Your task to perform on an android device: open app "NewsBreak: Local News & Alerts" (install if not already installed) and go to login screen Image 0: 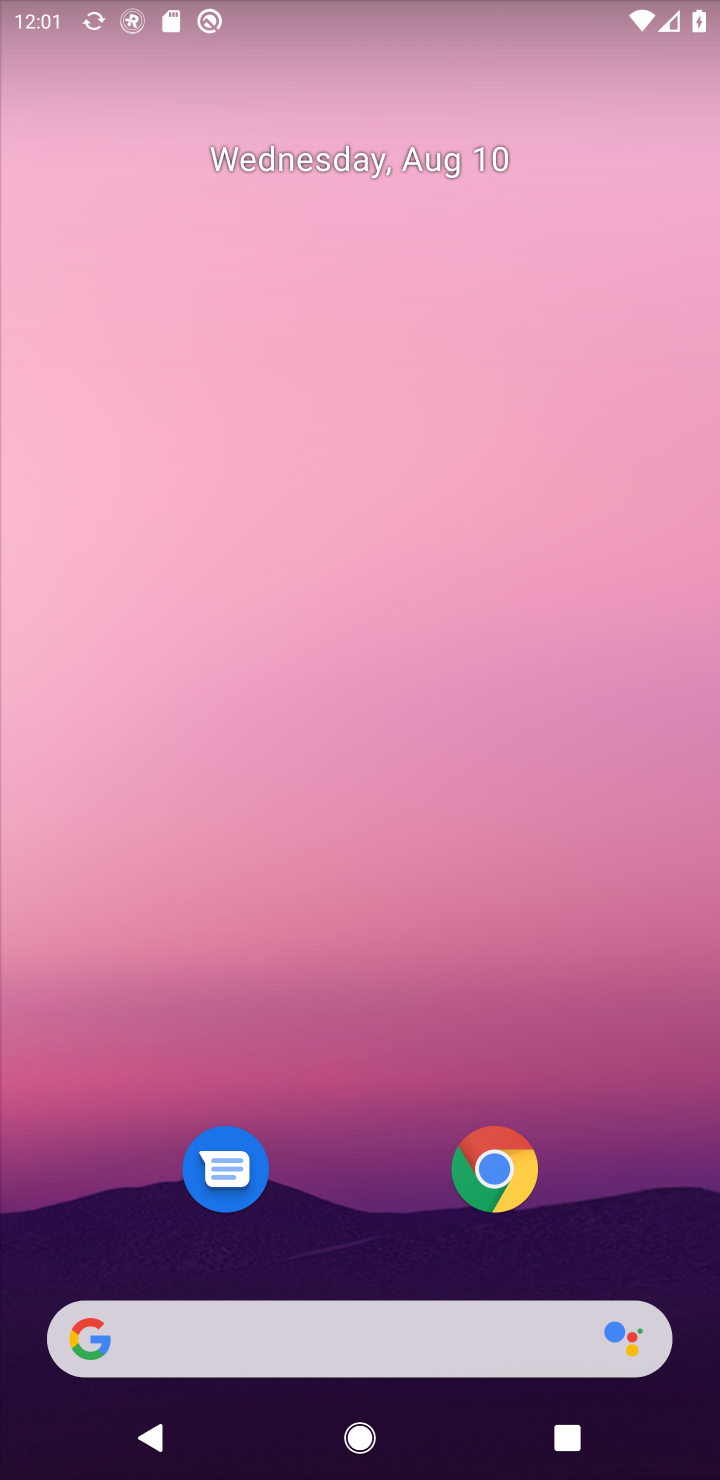
Step 0: press home button
Your task to perform on an android device: open app "NewsBreak: Local News & Alerts" (install if not already installed) and go to login screen Image 1: 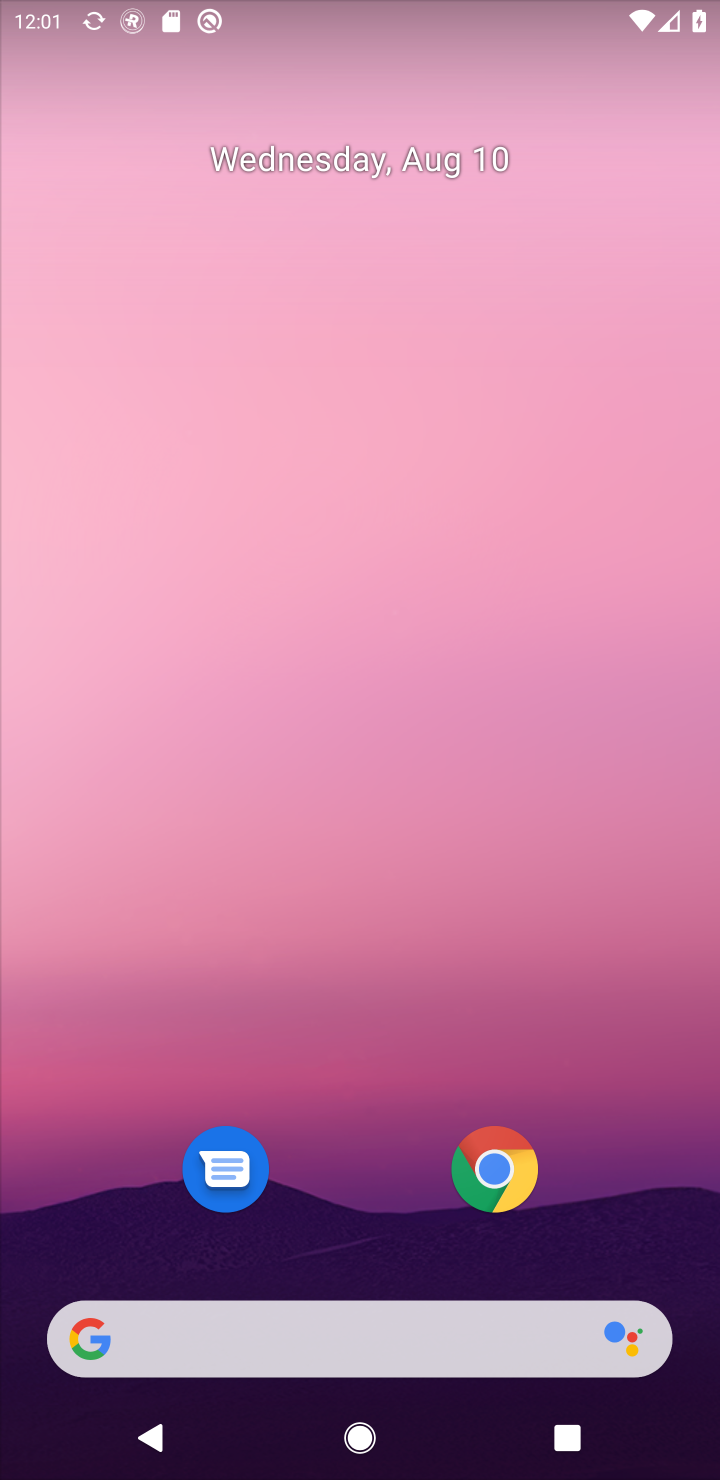
Step 1: drag from (630, 1153) to (610, 54)
Your task to perform on an android device: open app "NewsBreak: Local News & Alerts" (install if not already installed) and go to login screen Image 2: 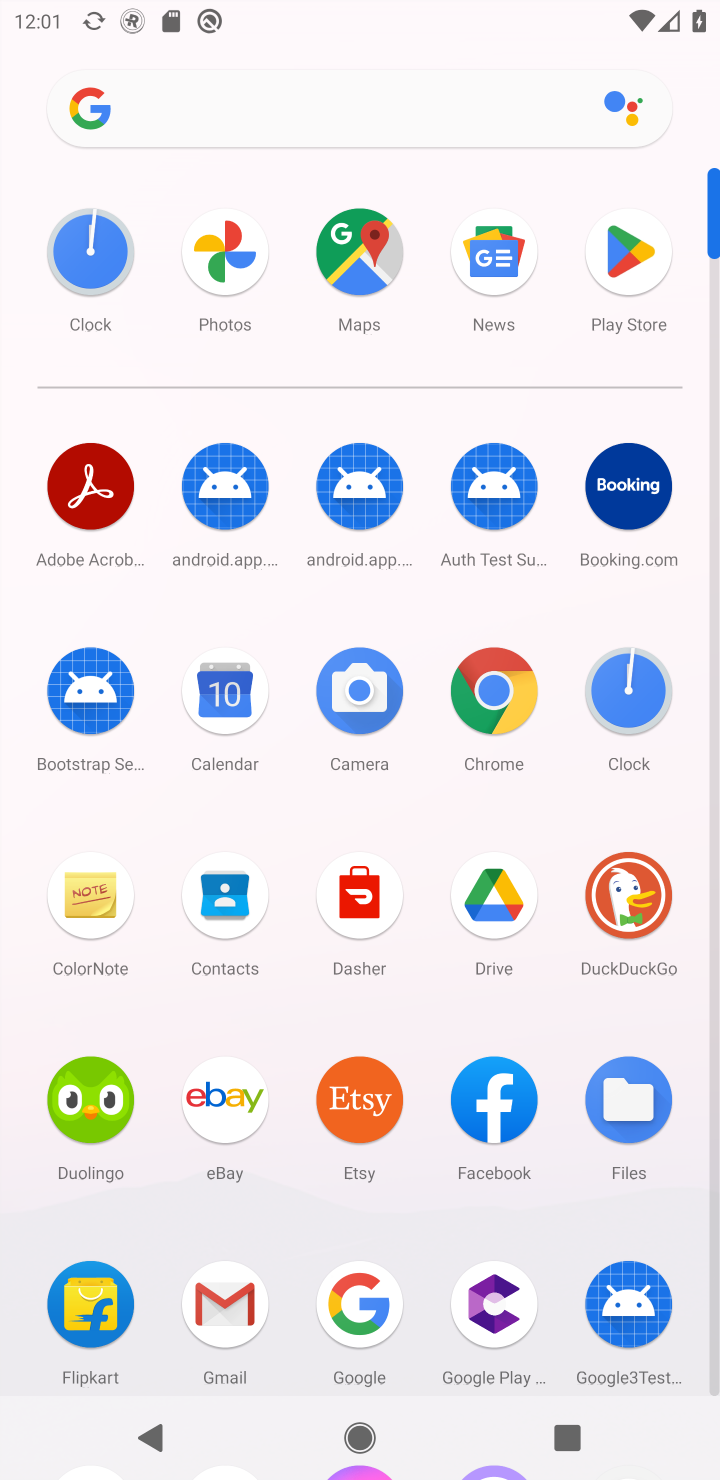
Step 2: click (627, 258)
Your task to perform on an android device: open app "NewsBreak: Local News & Alerts" (install if not already installed) and go to login screen Image 3: 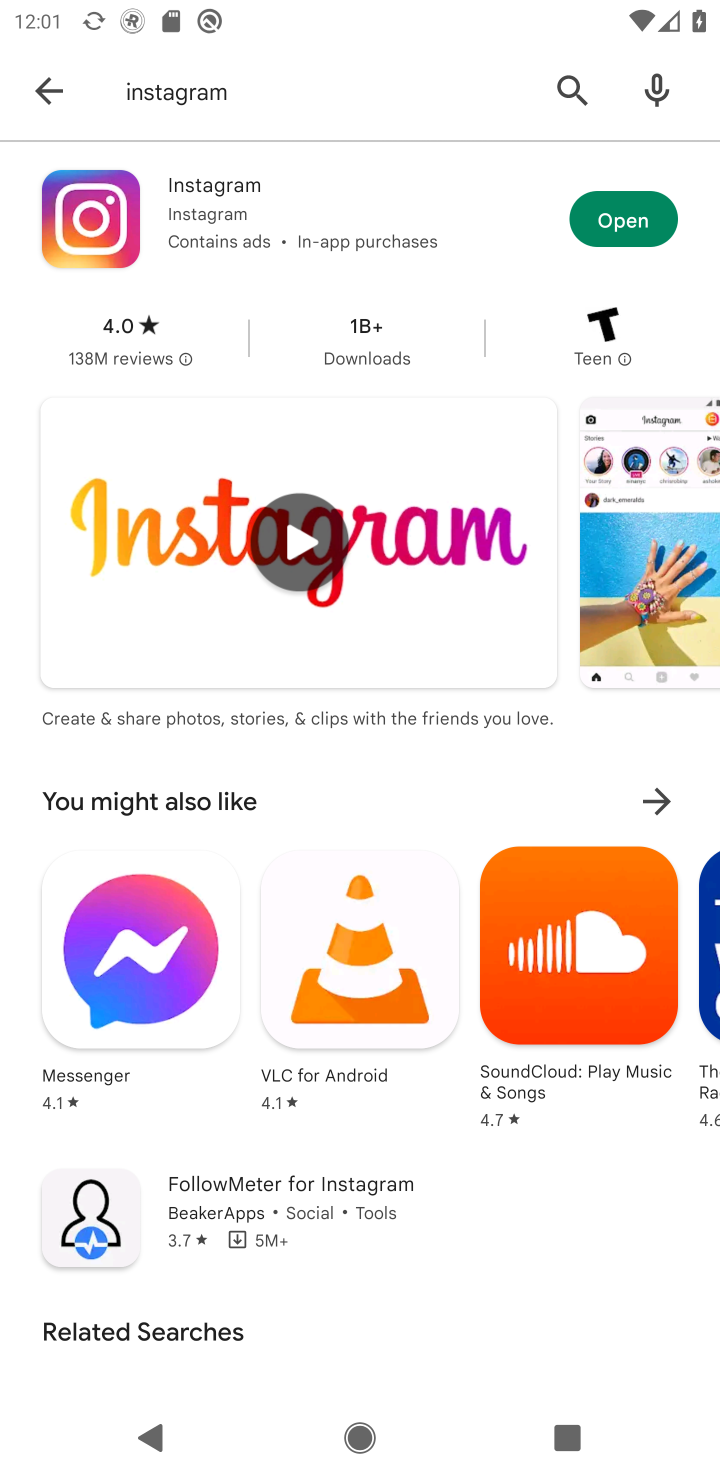
Step 3: click (568, 74)
Your task to perform on an android device: open app "NewsBreak: Local News & Alerts" (install if not already installed) and go to login screen Image 4: 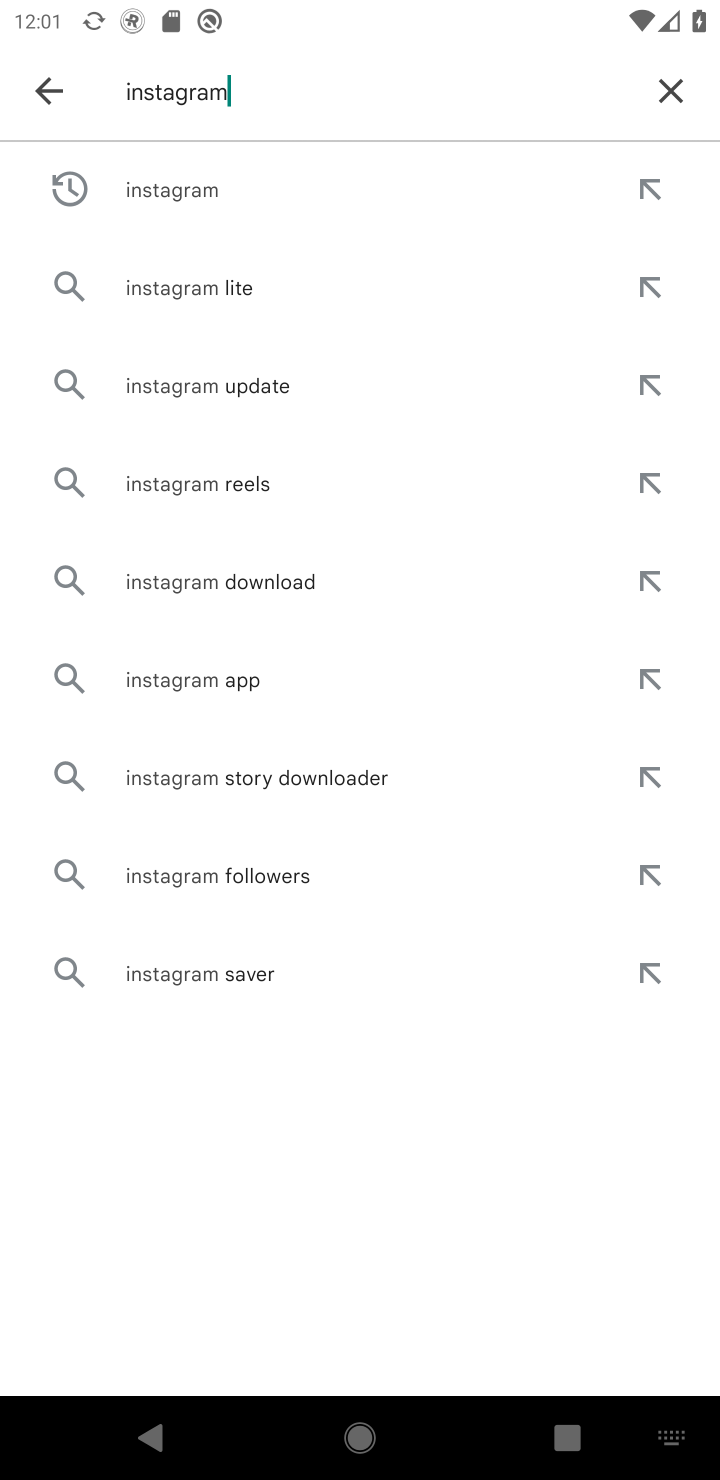
Step 4: click (679, 89)
Your task to perform on an android device: open app "NewsBreak: Local News & Alerts" (install if not already installed) and go to login screen Image 5: 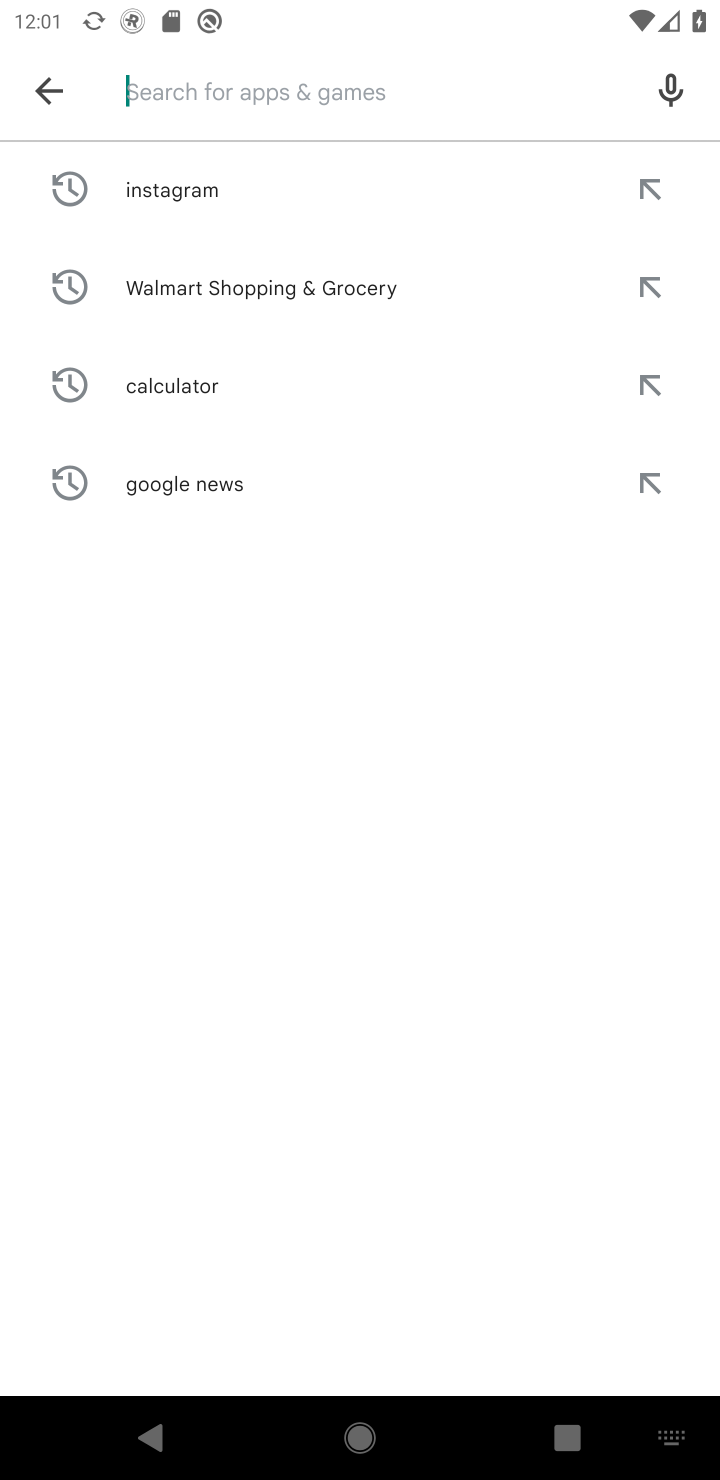
Step 5: click (332, 103)
Your task to perform on an android device: open app "NewsBreak: Local News & Alerts" (install if not already installed) and go to login screen Image 6: 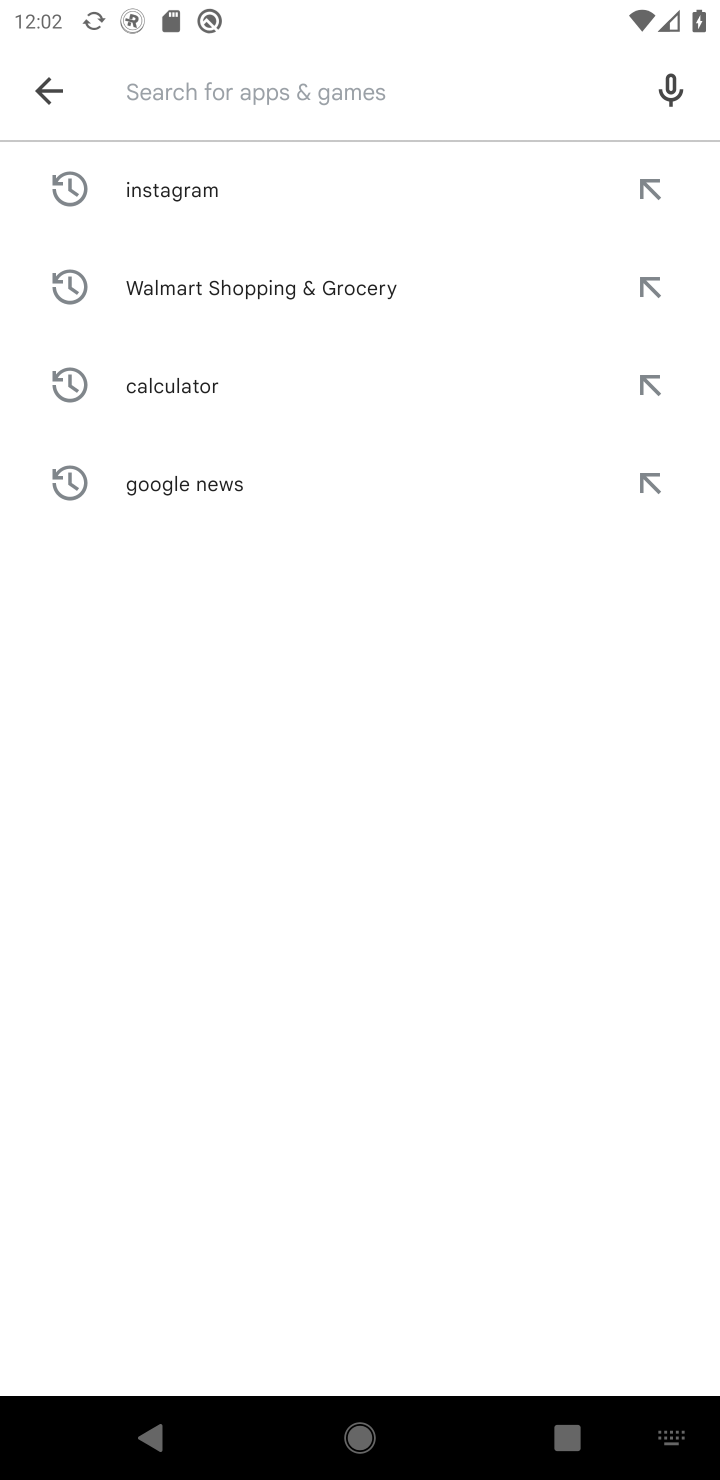
Step 6: type "NewsBreak: Local News & Alerts"
Your task to perform on an android device: open app "NewsBreak: Local News & Alerts" (install if not already installed) and go to login screen Image 7: 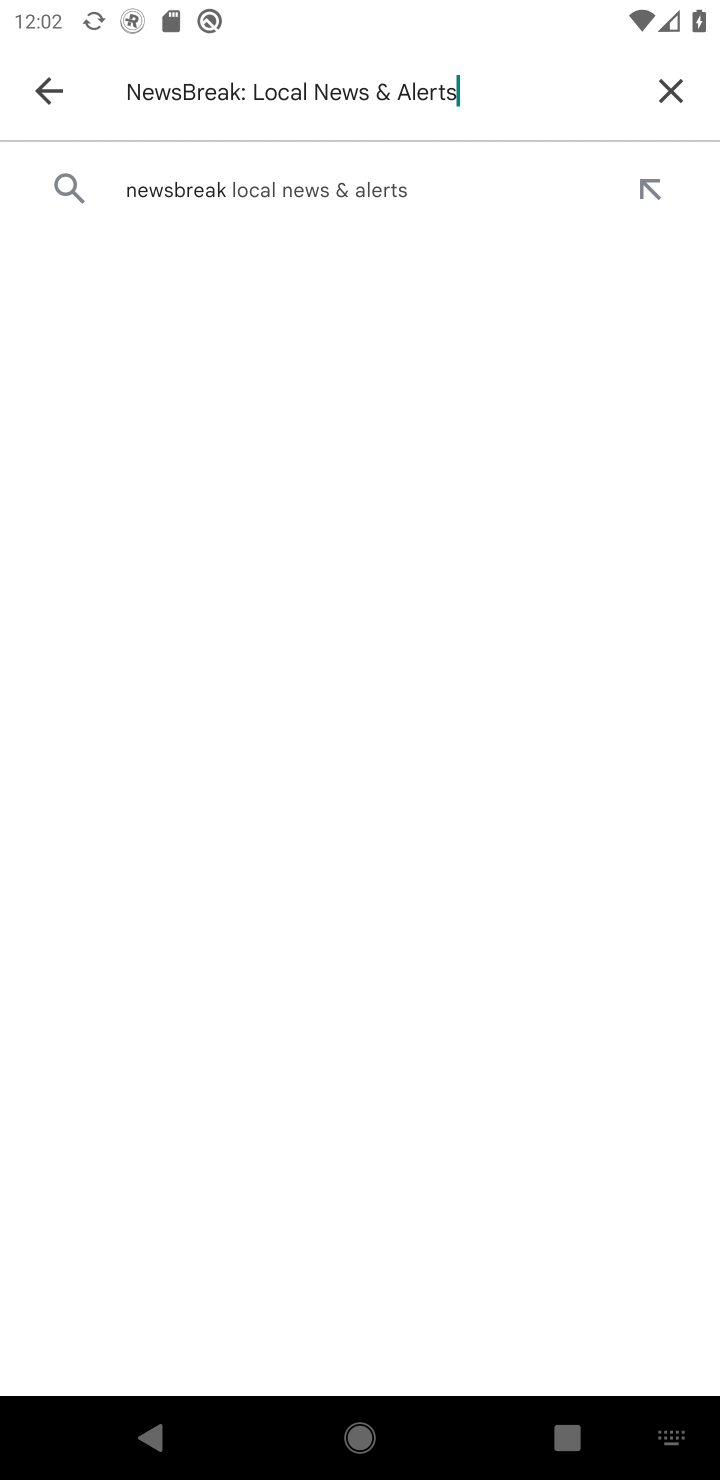
Step 7: click (382, 178)
Your task to perform on an android device: open app "NewsBreak: Local News & Alerts" (install if not already installed) and go to login screen Image 8: 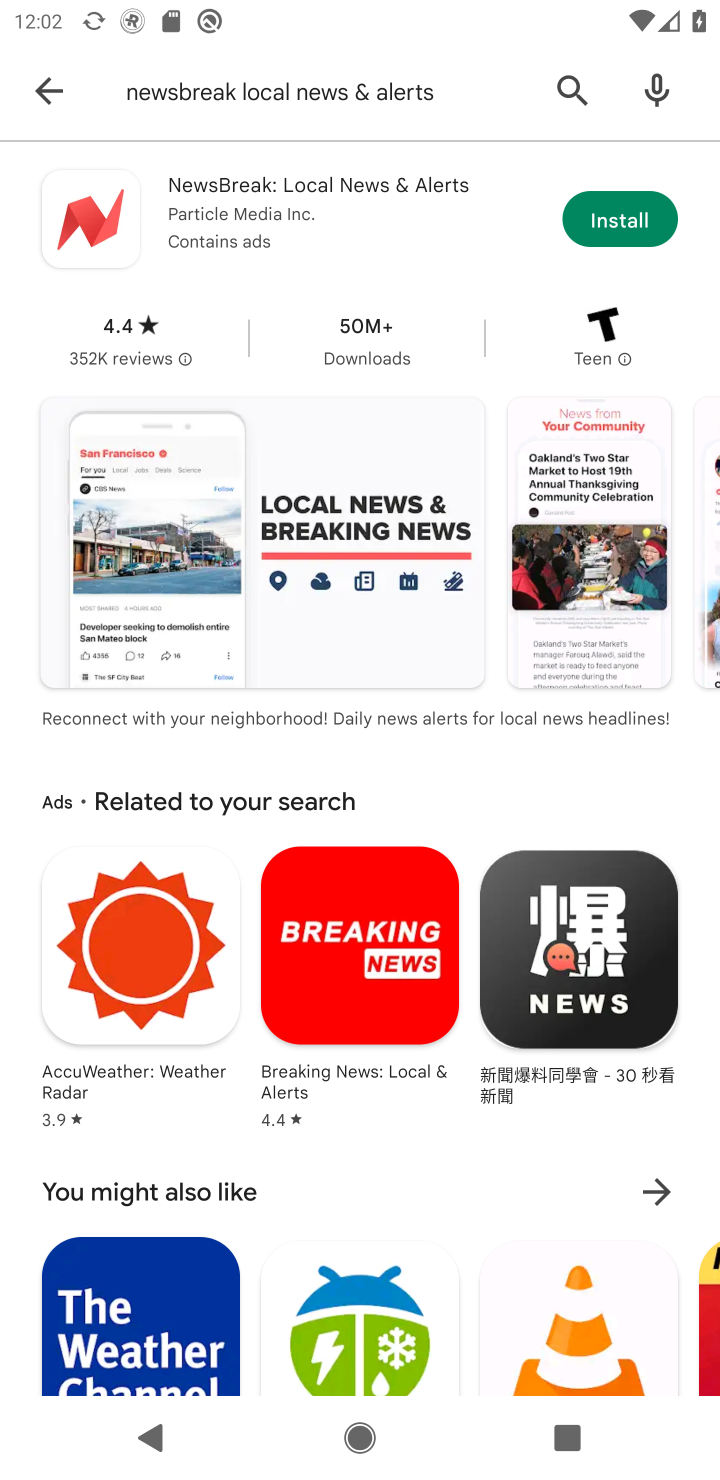
Step 8: click (629, 209)
Your task to perform on an android device: open app "NewsBreak: Local News & Alerts" (install if not already installed) and go to login screen Image 9: 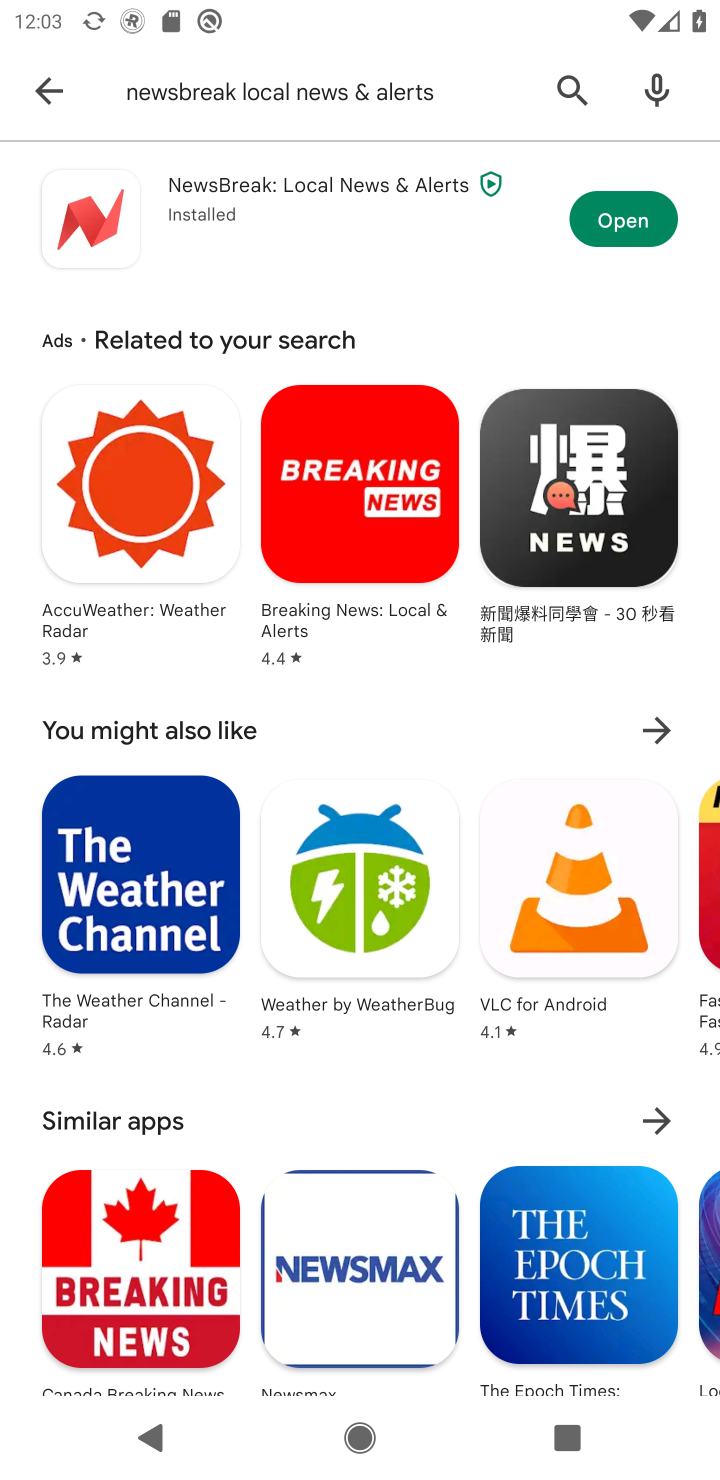
Step 9: click (623, 219)
Your task to perform on an android device: open app "NewsBreak: Local News & Alerts" (install if not already installed) and go to login screen Image 10: 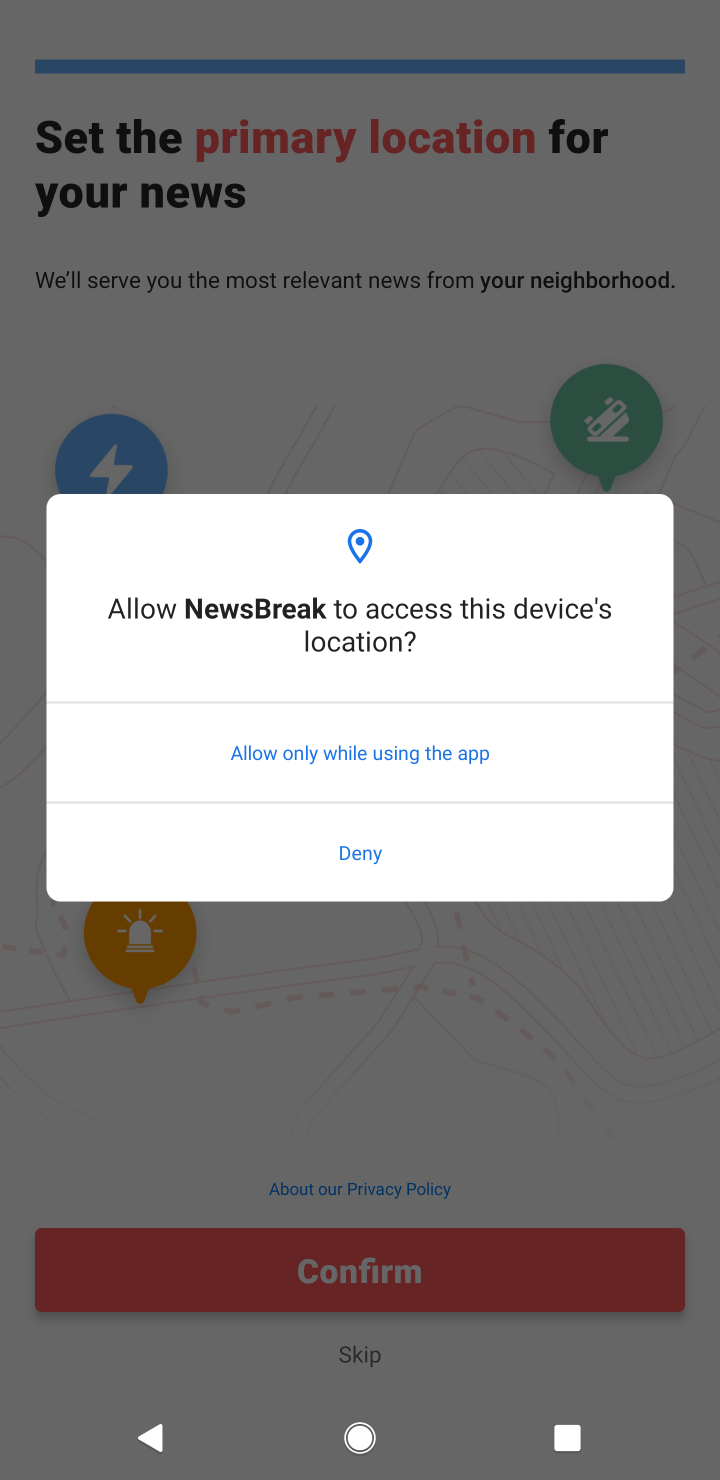
Step 10: click (368, 854)
Your task to perform on an android device: open app "NewsBreak: Local News & Alerts" (install if not already installed) and go to login screen Image 11: 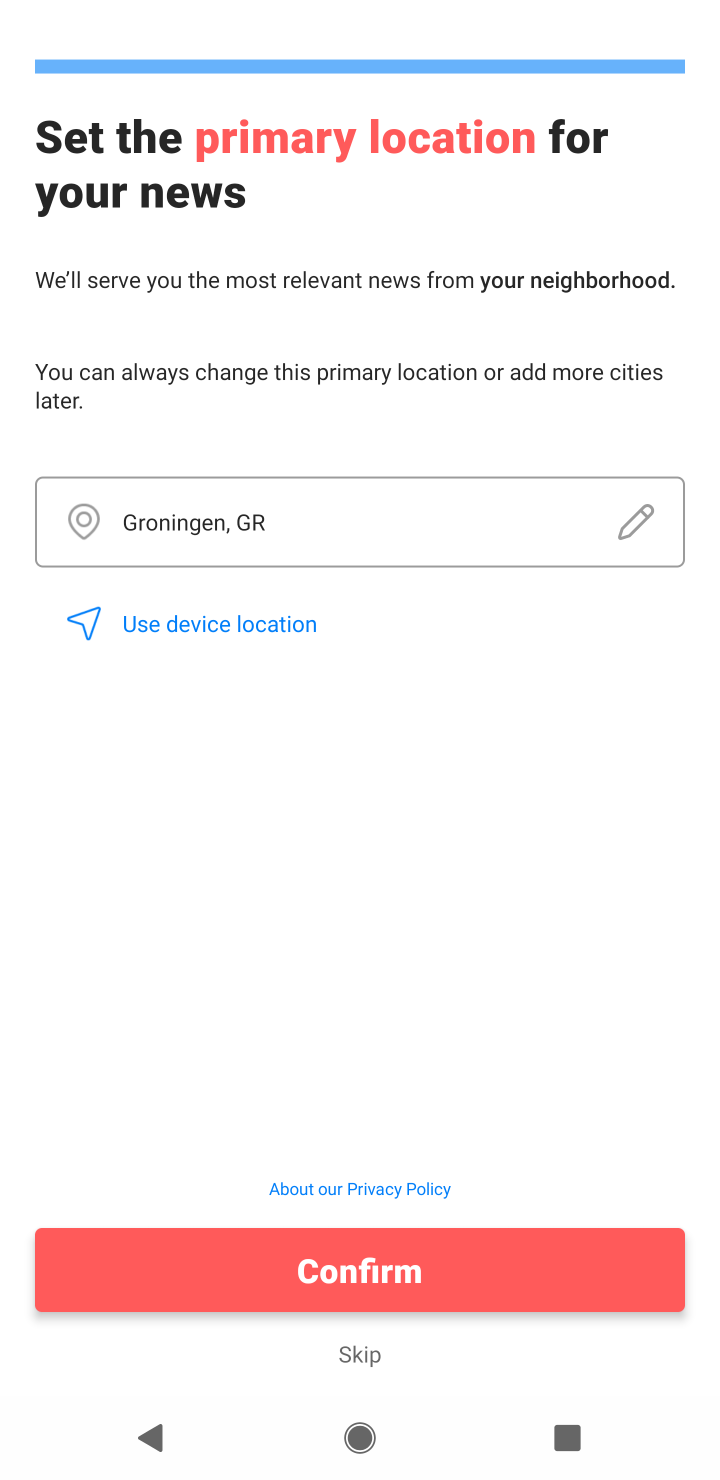
Step 11: task complete